Your task to perform on an android device: delete a single message in the gmail app Image 0: 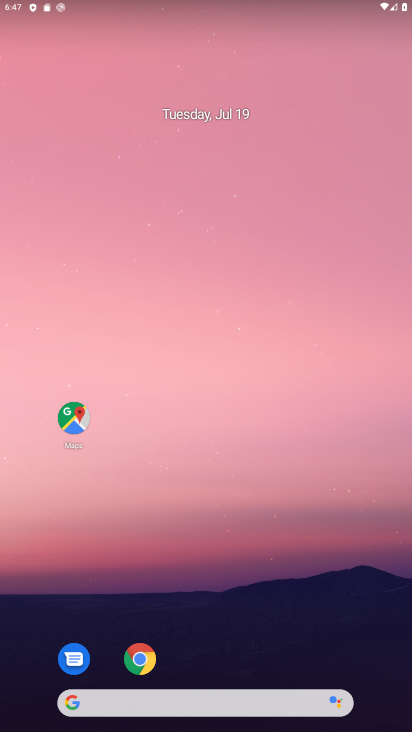
Step 0: drag from (205, 640) to (215, 46)
Your task to perform on an android device: delete a single message in the gmail app Image 1: 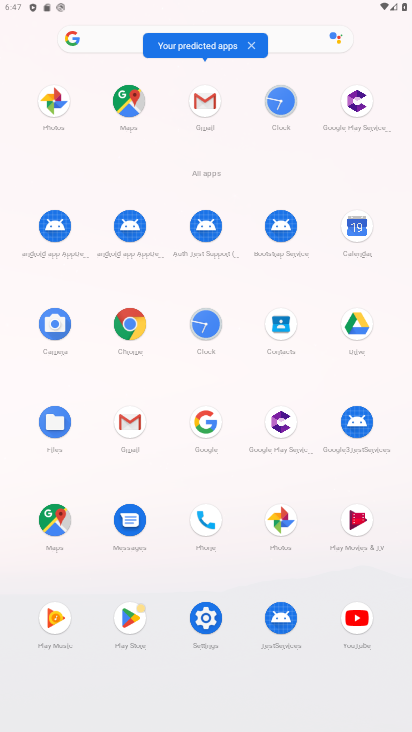
Step 1: click (130, 419)
Your task to perform on an android device: delete a single message in the gmail app Image 2: 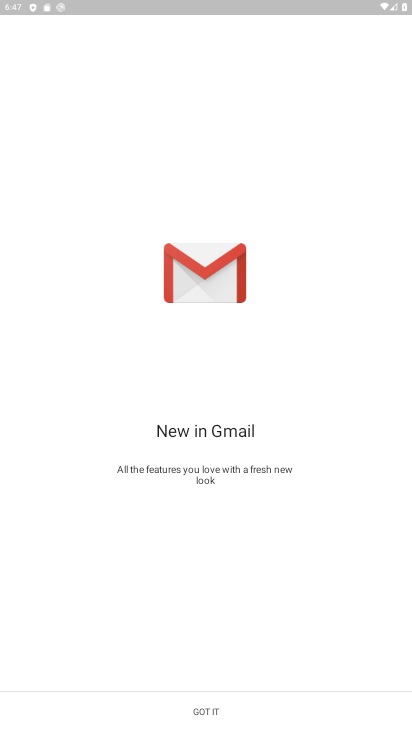
Step 2: click (198, 712)
Your task to perform on an android device: delete a single message in the gmail app Image 3: 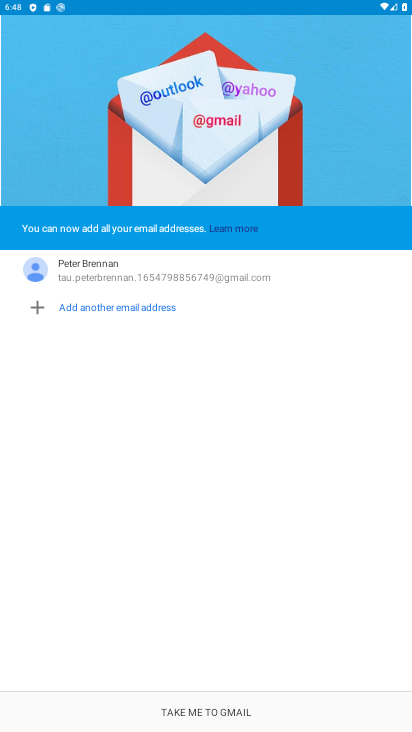
Step 3: click (176, 715)
Your task to perform on an android device: delete a single message in the gmail app Image 4: 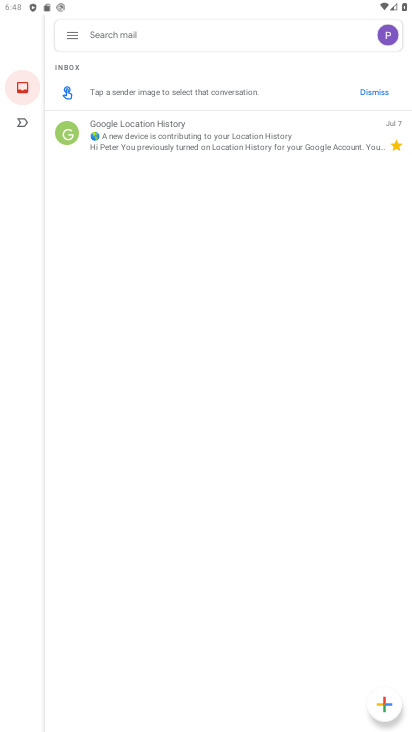
Step 4: click (65, 139)
Your task to perform on an android device: delete a single message in the gmail app Image 5: 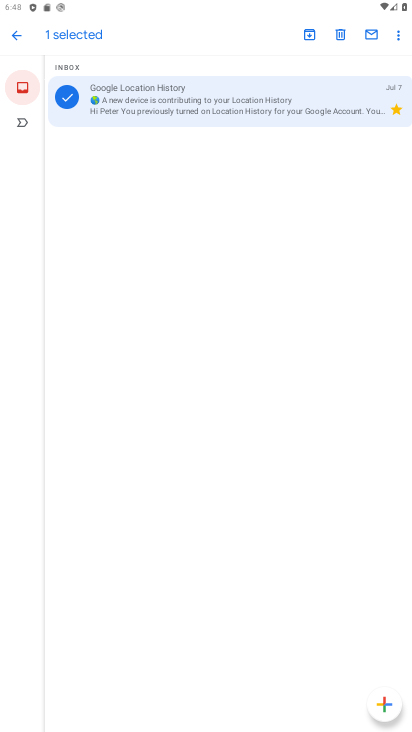
Step 5: click (341, 43)
Your task to perform on an android device: delete a single message in the gmail app Image 6: 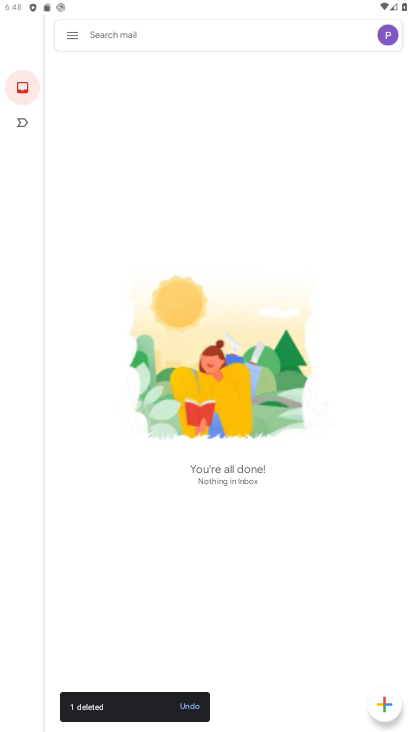
Step 6: task complete